Your task to perform on an android device: Open Yahoo.com Image 0: 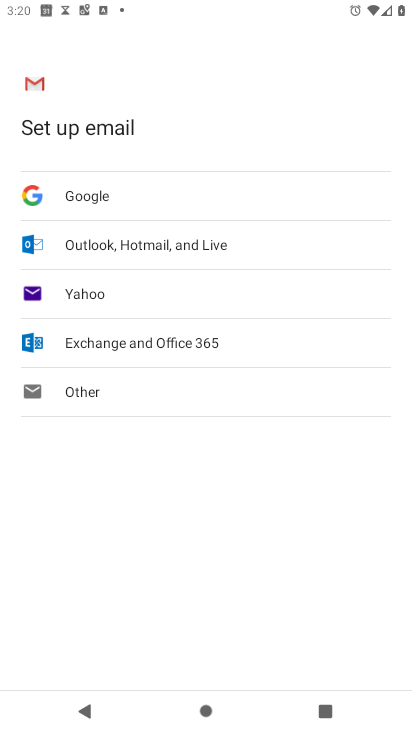
Step 0: press home button
Your task to perform on an android device: Open Yahoo.com Image 1: 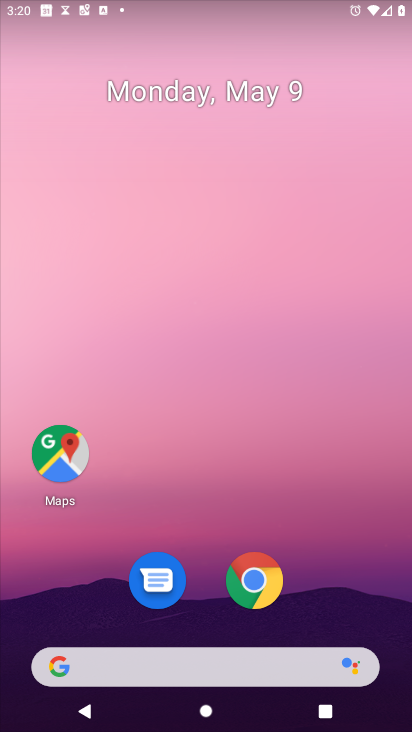
Step 1: click (252, 602)
Your task to perform on an android device: Open Yahoo.com Image 2: 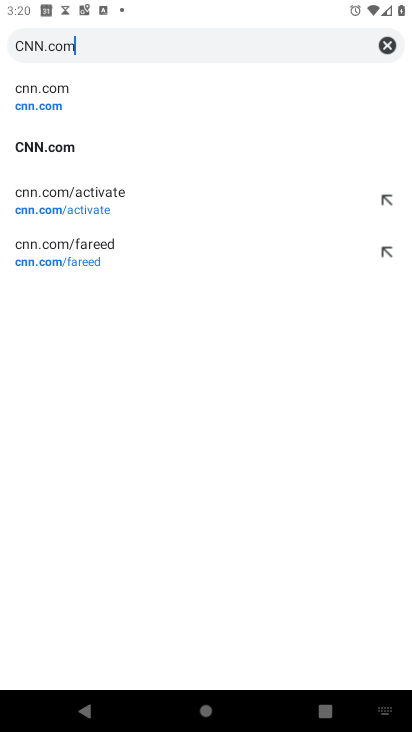
Step 2: click (395, 42)
Your task to perform on an android device: Open Yahoo.com Image 3: 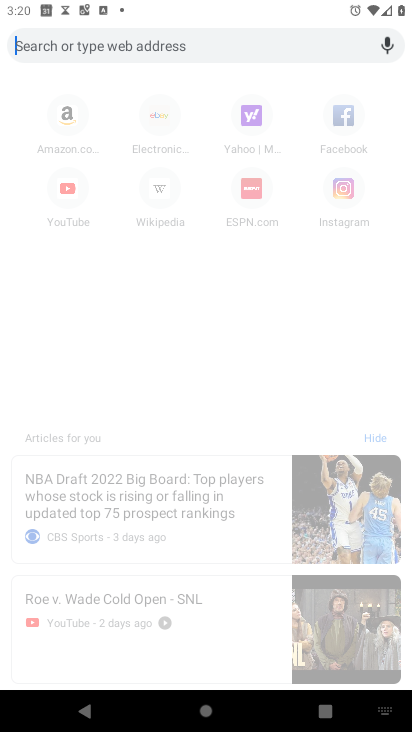
Step 3: click (254, 117)
Your task to perform on an android device: Open Yahoo.com Image 4: 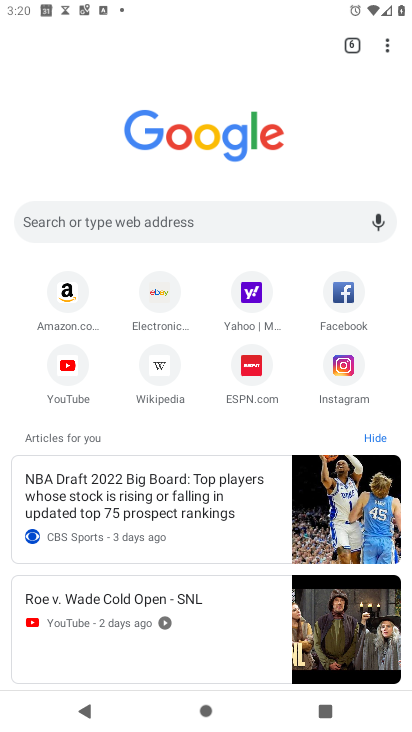
Step 4: click (246, 293)
Your task to perform on an android device: Open Yahoo.com Image 5: 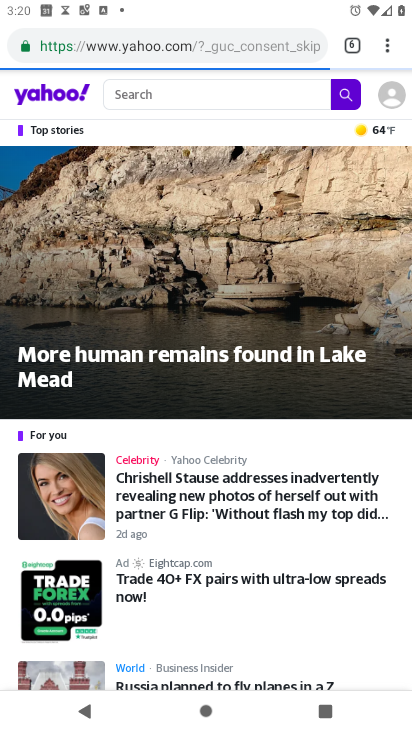
Step 5: task complete